Your task to perform on an android device: change the clock display to analog Image 0: 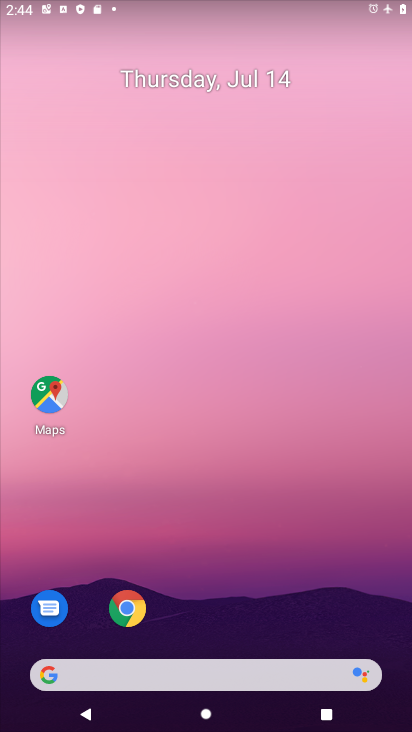
Step 0: drag from (369, 637) to (348, 148)
Your task to perform on an android device: change the clock display to analog Image 1: 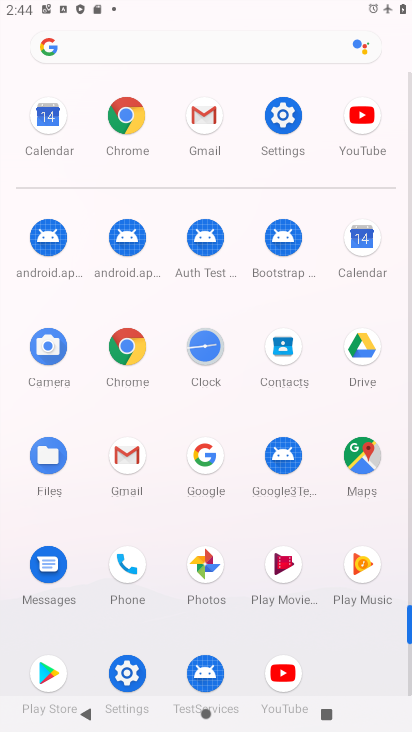
Step 1: click (203, 349)
Your task to perform on an android device: change the clock display to analog Image 2: 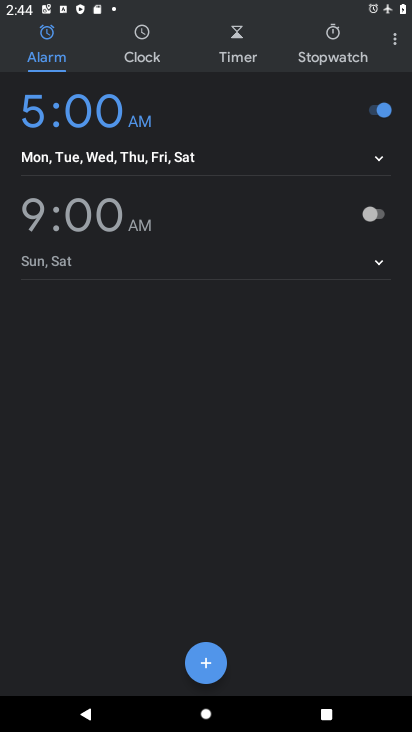
Step 2: click (395, 45)
Your task to perform on an android device: change the clock display to analog Image 3: 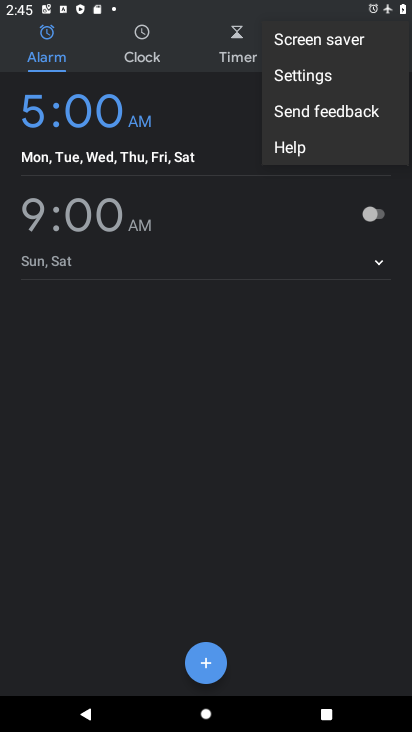
Step 3: click (297, 75)
Your task to perform on an android device: change the clock display to analog Image 4: 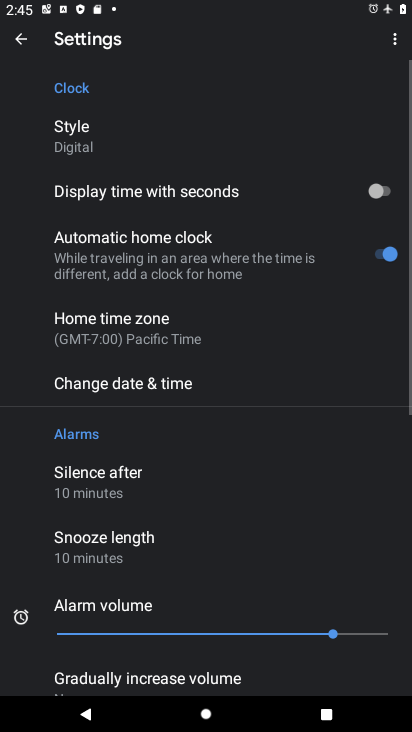
Step 4: click (75, 145)
Your task to perform on an android device: change the clock display to analog Image 5: 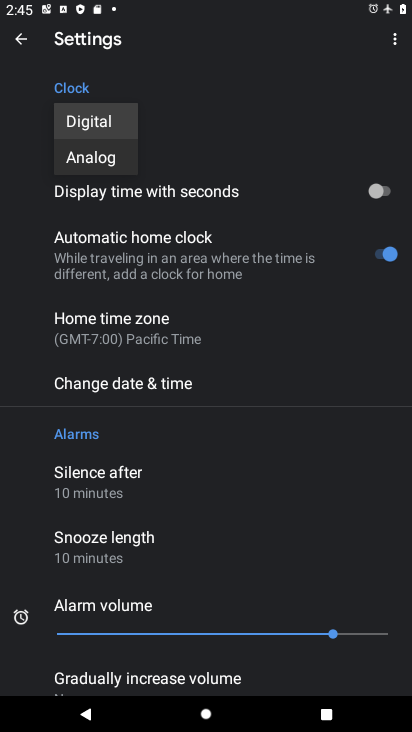
Step 5: click (94, 160)
Your task to perform on an android device: change the clock display to analog Image 6: 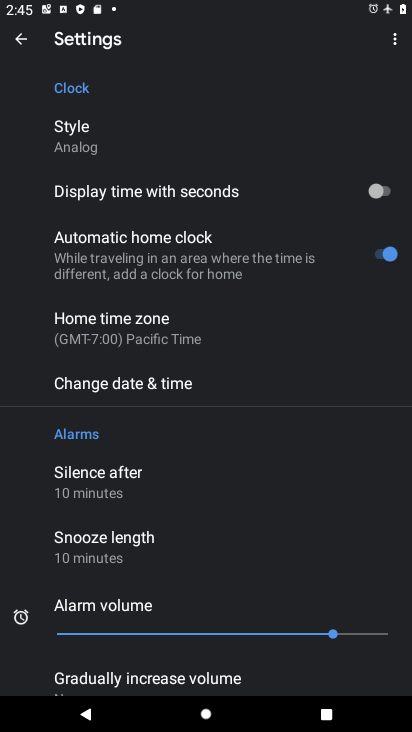
Step 6: task complete